Your task to perform on an android device: change timer sound Image 0: 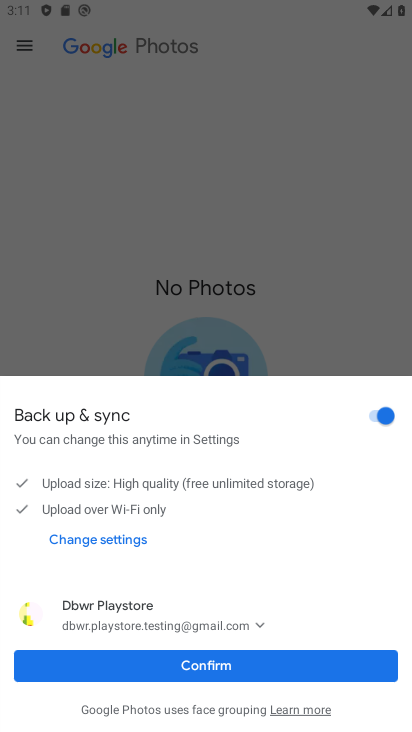
Step 0: press home button
Your task to perform on an android device: change timer sound Image 1: 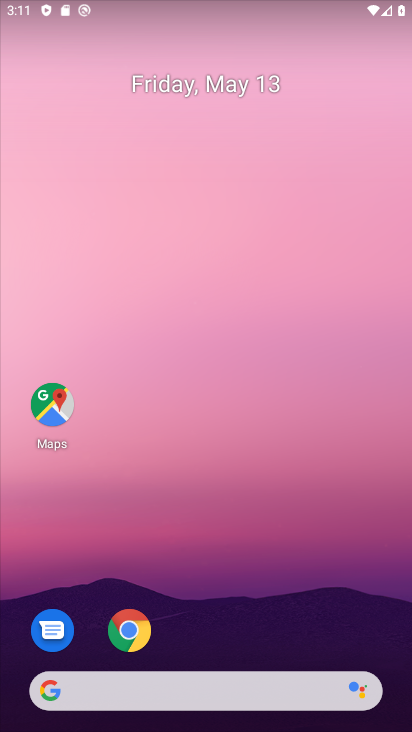
Step 1: drag from (195, 666) to (149, 23)
Your task to perform on an android device: change timer sound Image 2: 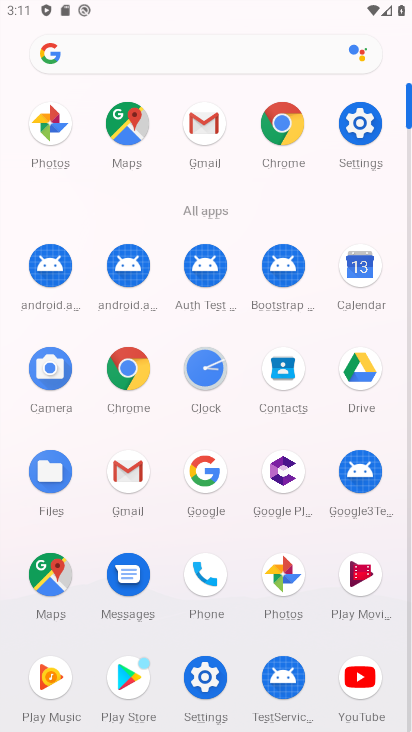
Step 2: click (206, 382)
Your task to perform on an android device: change timer sound Image 3: 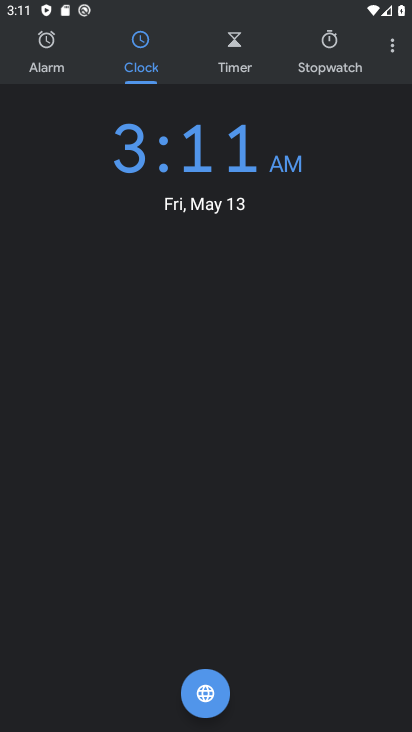
Step 3: click (389, 57)
Your task to perform on an android device: change timer sound Image 4: 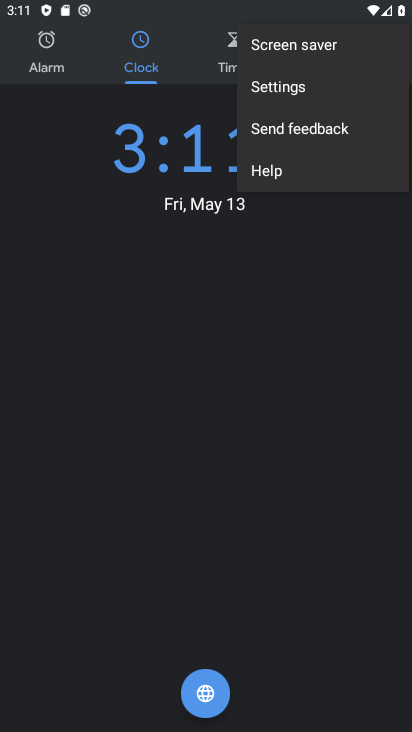
Step 4: click (271, 87)
Your task to perform on an android device: change timer sound Image 5: 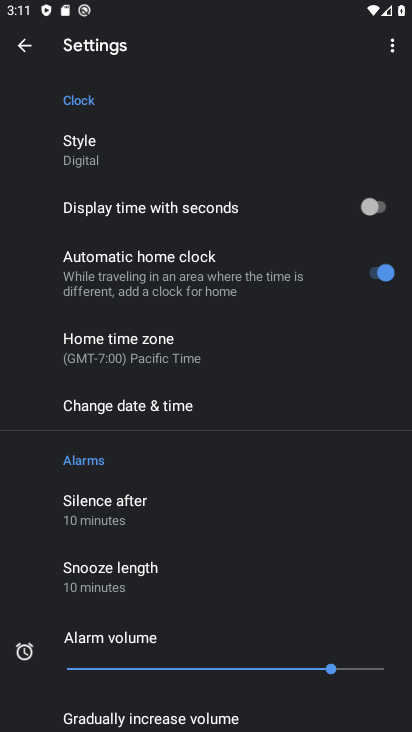
Step 5: drag from (147, 590) to (52, 202)
Your task to perform on an android device: change timer sound Image 6: 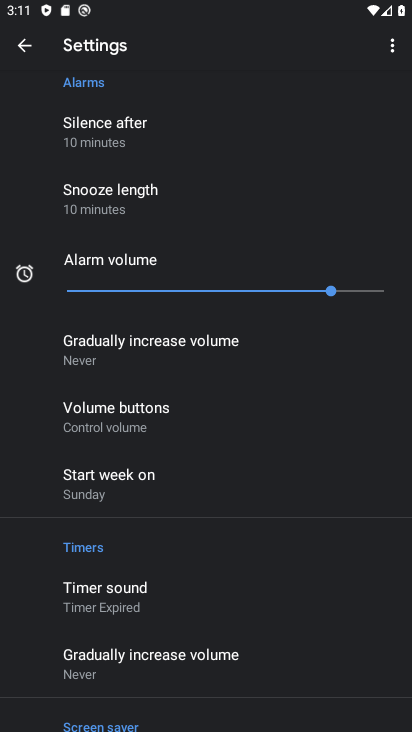
Step 6: click (136, 608)
Your task to perform on an android device: change timer sound Image 7: 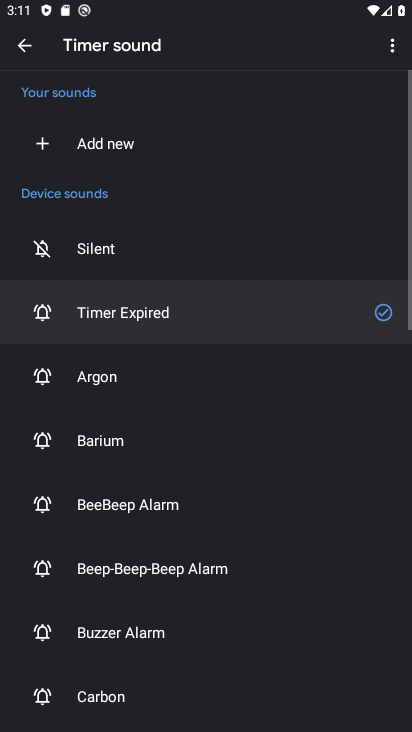
Step 7: click (106, 395)
Your task to perform on an android device: change timer sound Image 8: 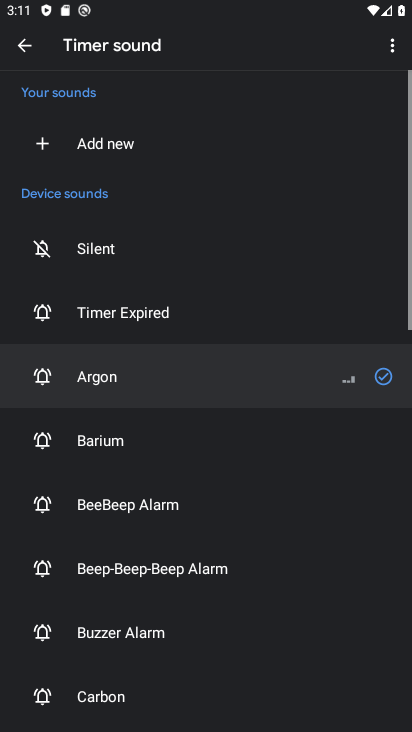
Step 8: task complete